Your task to perform on an android device: check data usage Image 0: 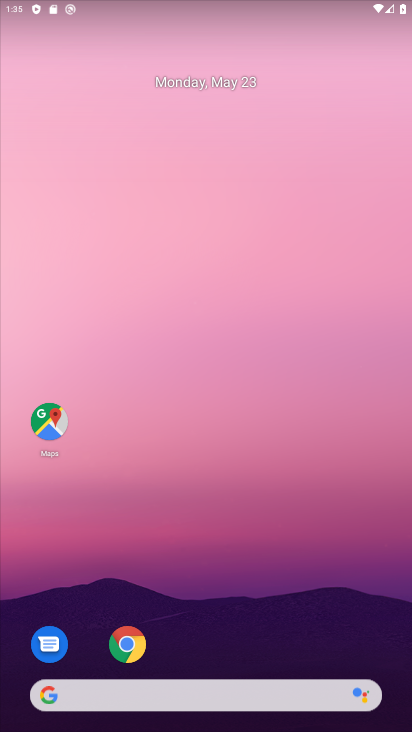
Step 0: drag from (229, 638) to (143, 0)
Your task to perform on an android device: check data usage Image 1: 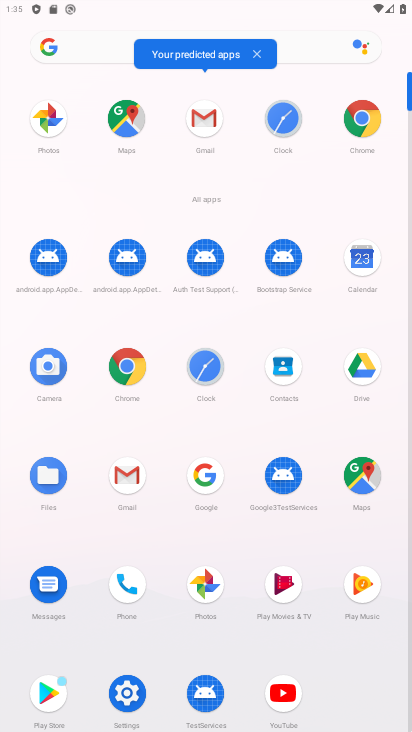
Step 1: click (136, 682)
Your task to perform on an android device: check data usage Image 2: 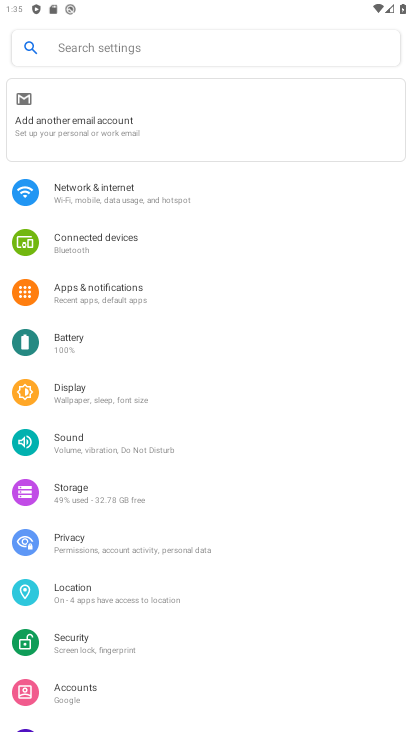
Step 2: click (109, 203)
Your task to perform on an android device: check data usage Image 3: 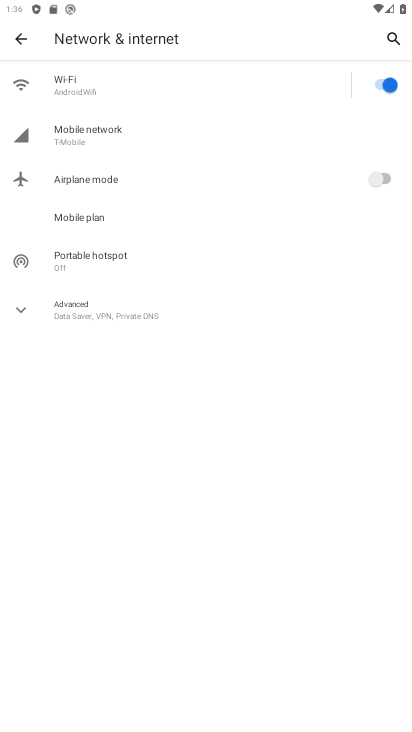
Step 3: click (67, 138)
Your task to perform on an android device: check data usage Image 4: 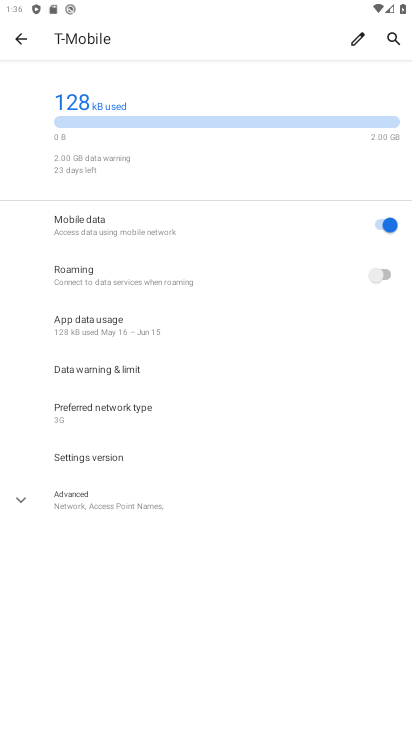
Step 4: task complete